Your task to perform on an android device: Open ESPN.com Image 0: 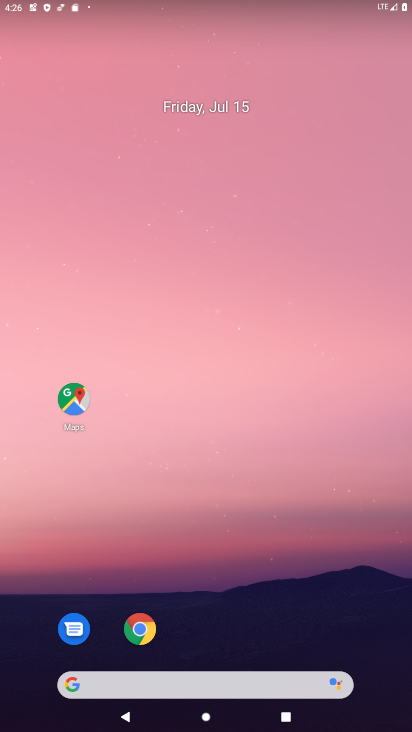
Step 0: press home button
Your task to perform on an android device: Open ESPN.com Image 1: 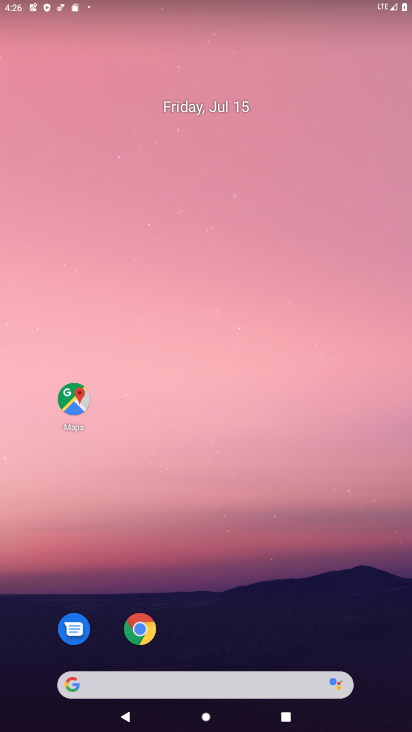
Step 1: click (139, 630)
Your task to perform on an android device: Open ESPN.com Image 2: 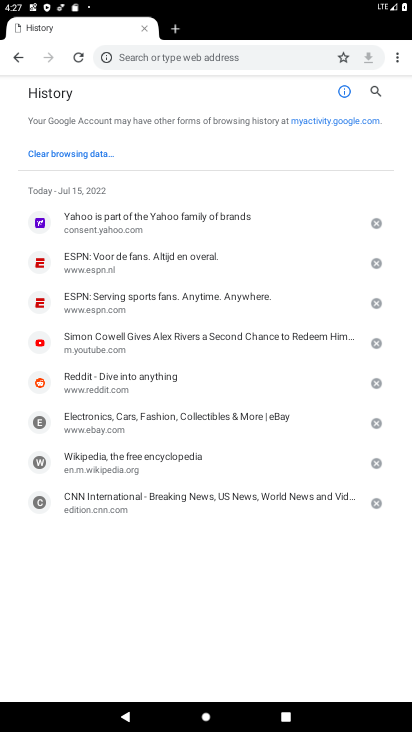
Step 2: click (18, 62)
Your task to perform on an android device: Open ESPN.com Image 3: 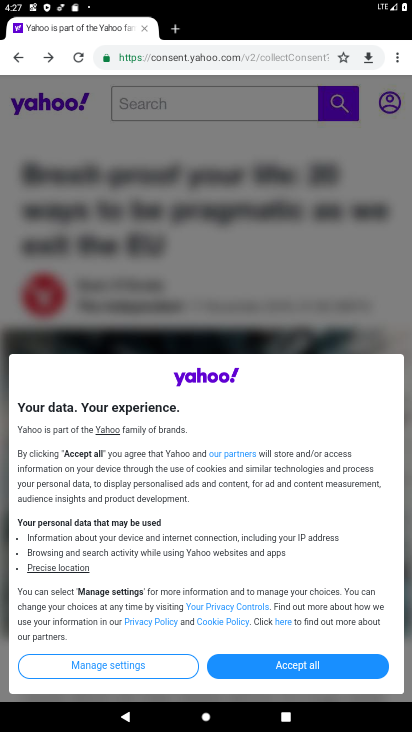
Step 3: click (211, 74)
Your task to perform on an android device: Open ESPN.com Image 4: 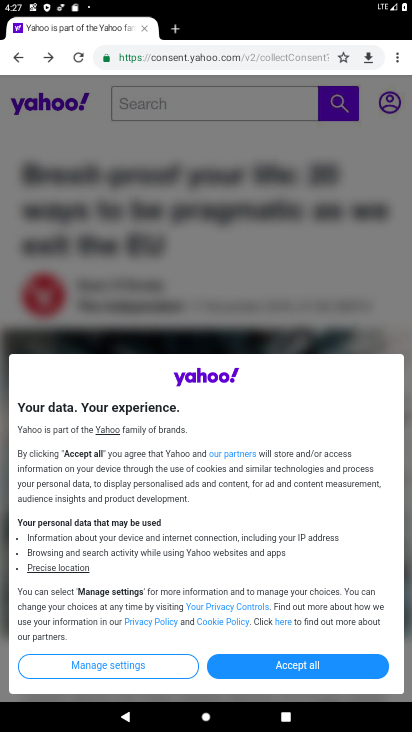
Step 4: click (248, 61)
Your task to perform on an android device: Open ESPN.com Image 5: 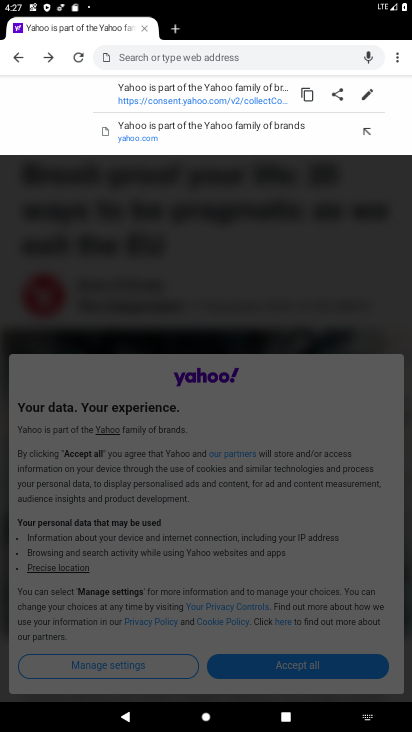
Step 5: type "www.espn.com"
Your task to perform on an android device: Open ESPN.com Image 6: 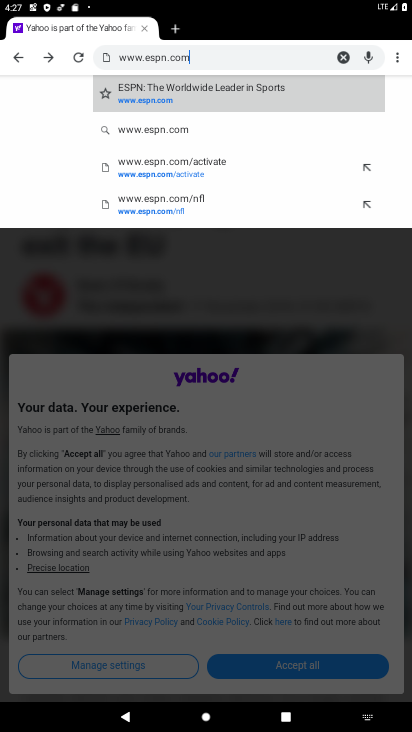
Step 6: click (143, 91)
Your task to perform on an android device: Open ESPN.com Image 7: 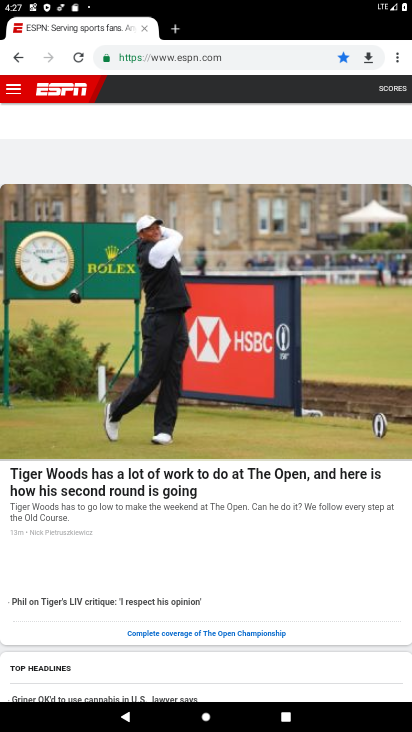
Step 7: task complete